Your task to perform on an android device: Go to internet settings Image 0: 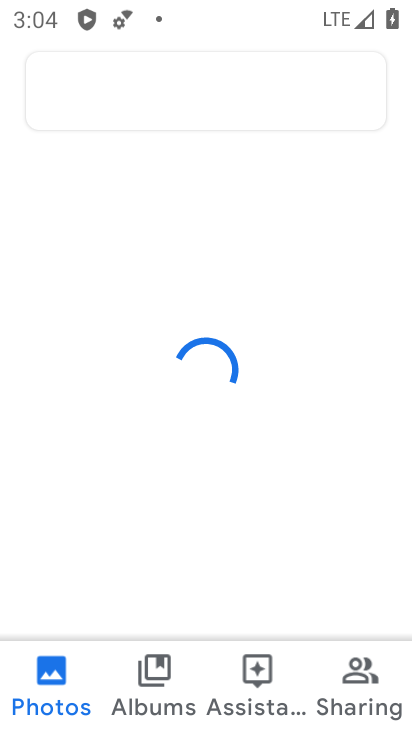
Step 0: press home button
Your task to perform on an android device: Go to internet settings Image 1: 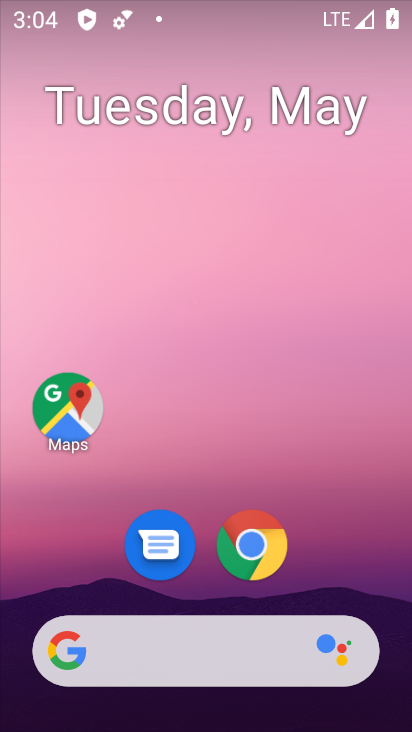
Step 1: drag from (335, 554) to (335, 143)
Your task to perform on an android device: Go to internet settings Image 2: 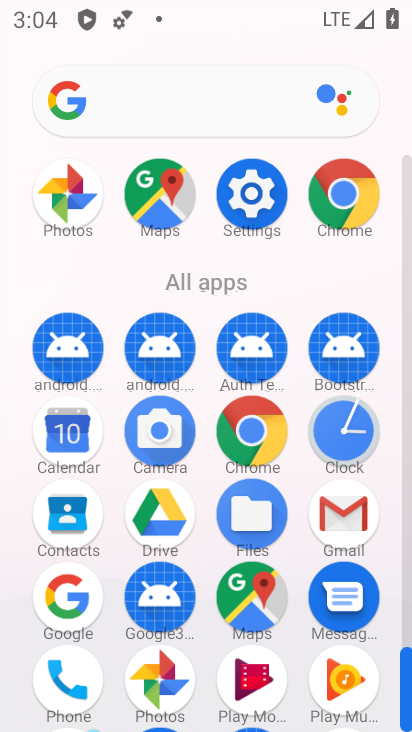
Step 2: click (249, 203)
Your task to perform on an android device: Go to internet settings Image 3: 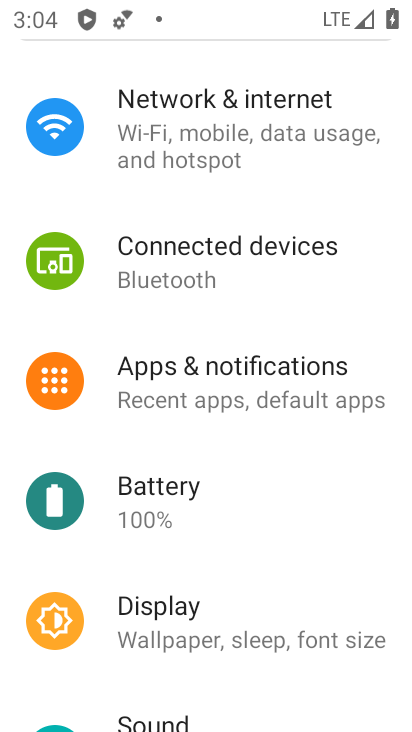
Step 3: click (260, 140)
Your task to perform on an android device: Go to internet settings Image 4: 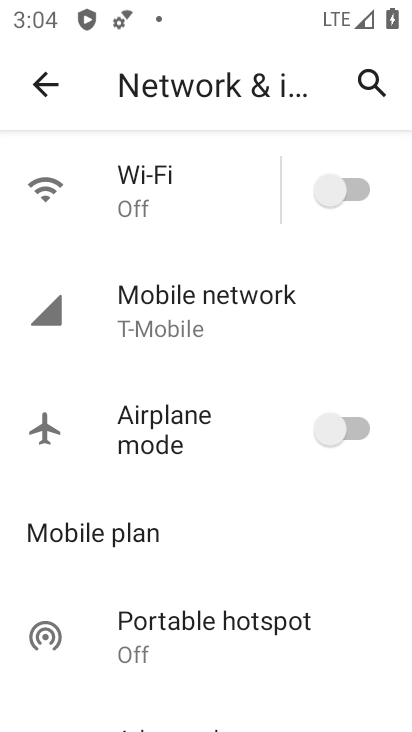
Step 4: task complete